Your task to perform on an android device: Do I have any events this weekend? Image 0: 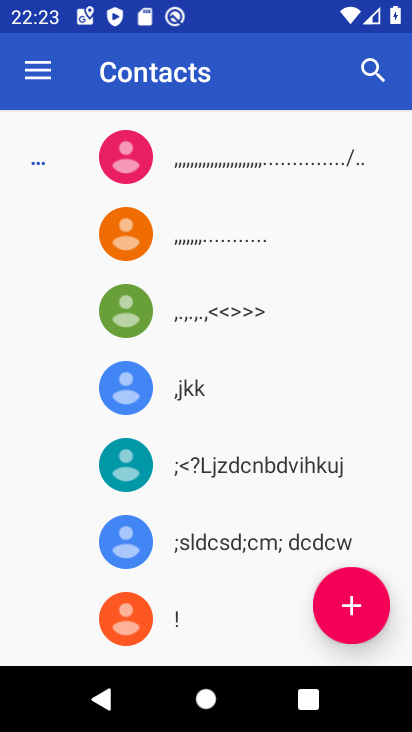
Step 0: press home button
Your task to perform on an android device: Do I have any events this weekend? Image 1: 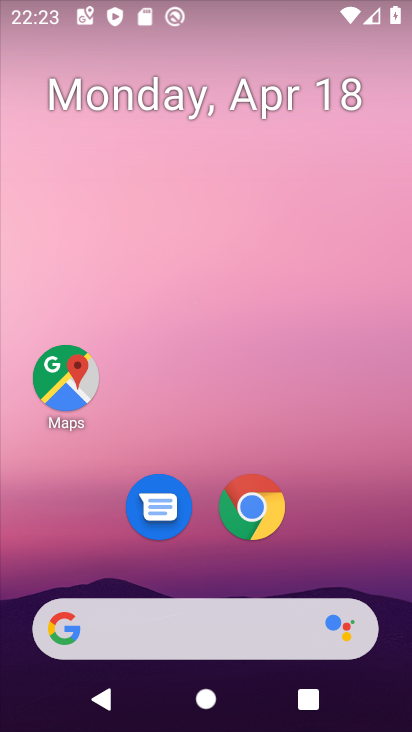
Step 1: drag from (326, 537) to (362, 79)
Your task to perform on an android device: Do I have any events this weekend? Image 2: 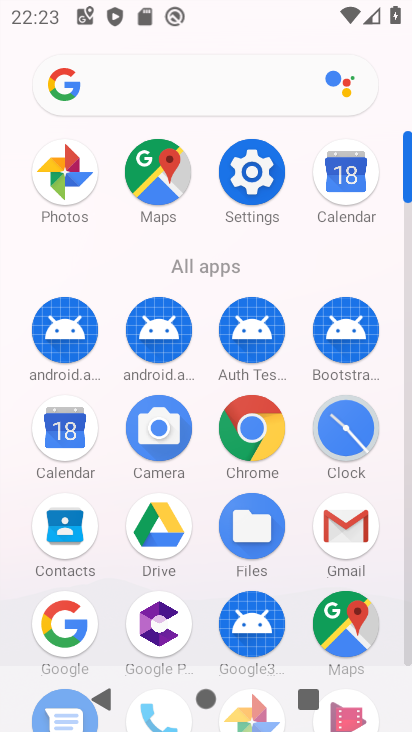
Step 2: click (74, 435)
Your task to perform on an android device: Do I have any events this weekend? Image 3: 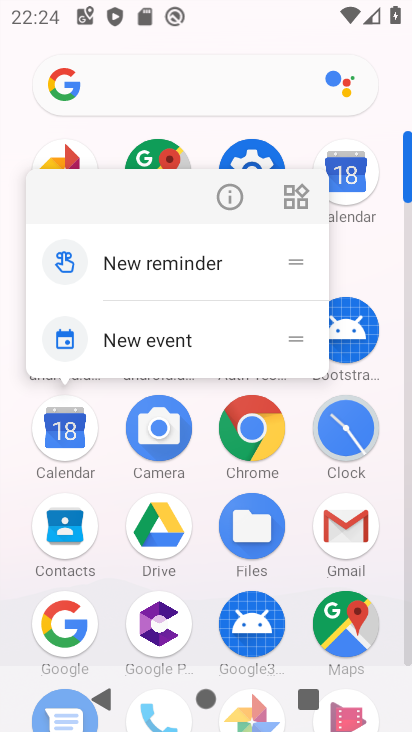
Step 3: click (74, 436)
Your task to perform on an android device: Do I have any events this weekend? Image 4: 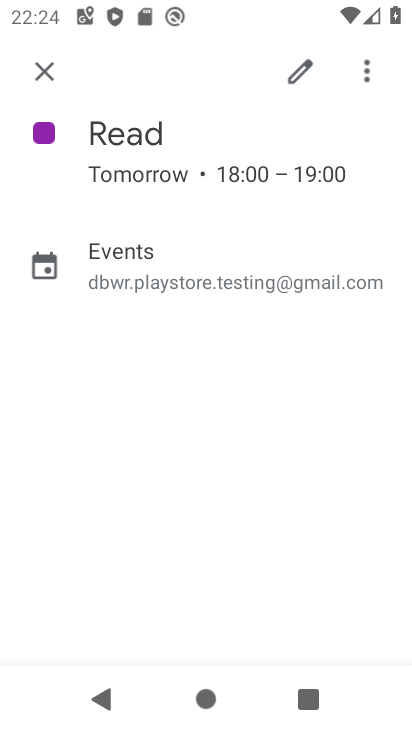
Step 4: click (45, 70)
Your task to perform on an android device: Do I have any events this weekend? Image 5: 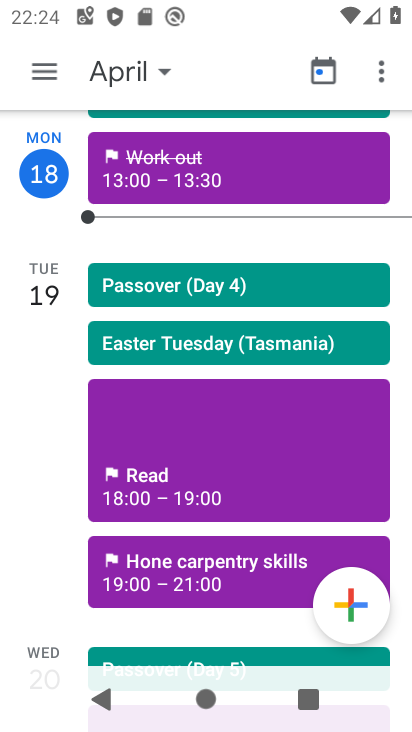
Step 5: click (36, 74)
Your task to perform on an android device: Do I have any events this weekend? Image 6: 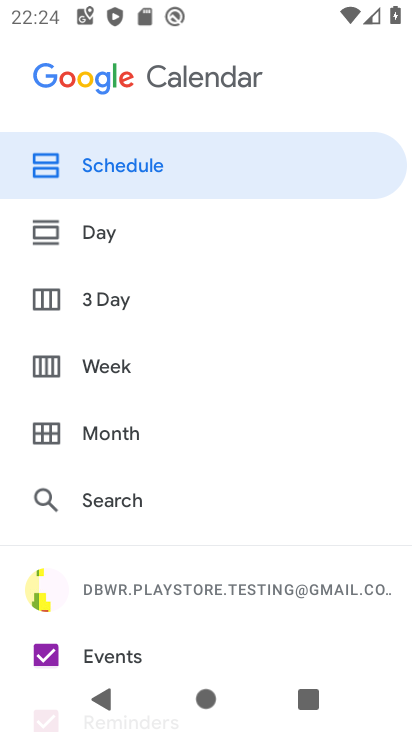
Step 6: click (108, 349)
Your task to perform on an android device: Do I have any events this weekend? Image 7: 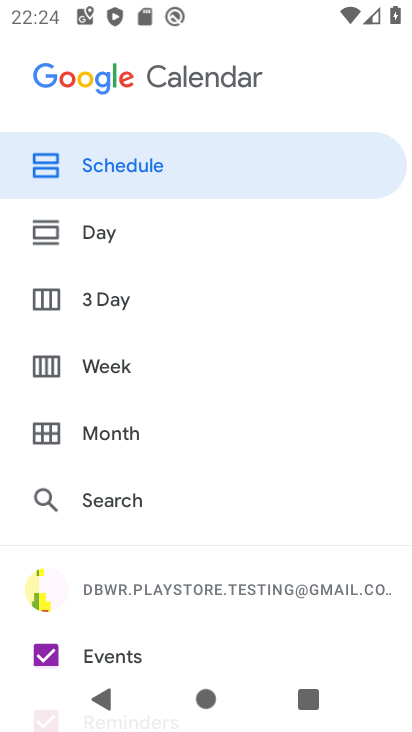
Step 7: click (105, 352)
Your task to perform on an android device: Do I have any events this weekend? Image 8: 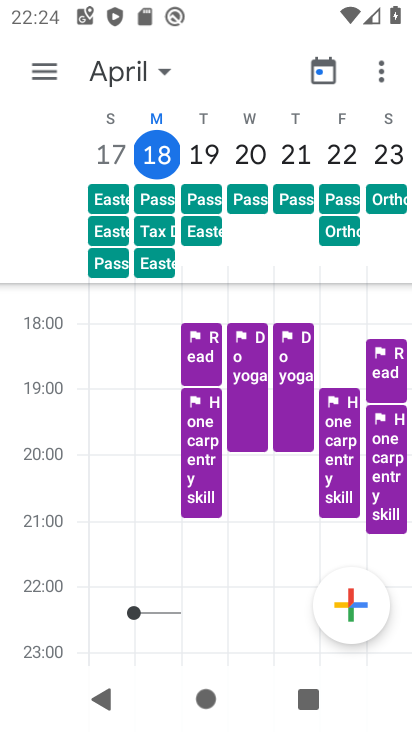
Step 8: click (383, 372)
Your task to perform on an android device: Do I have any events this weekend? Image 9: 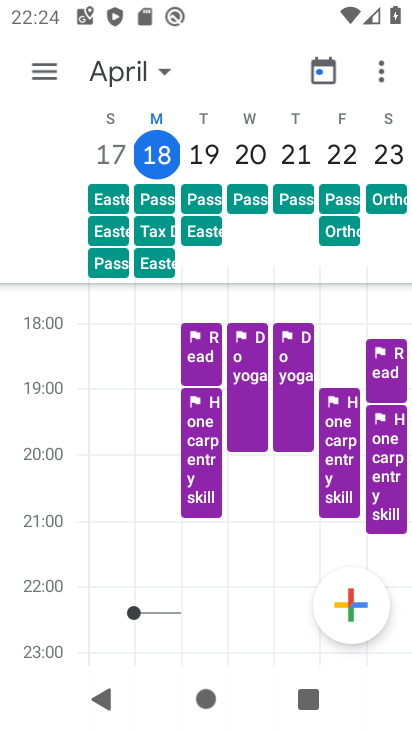
Step 9: click (387, 362)
Your task to perform on an android device: Do I have any events this weekend? Image 10: 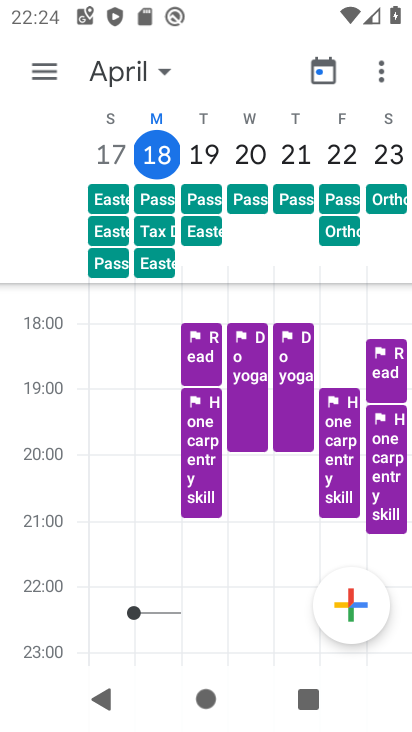
Step 10: task complete